Your task to perform on an android device: change alarm snooze length Image 0: 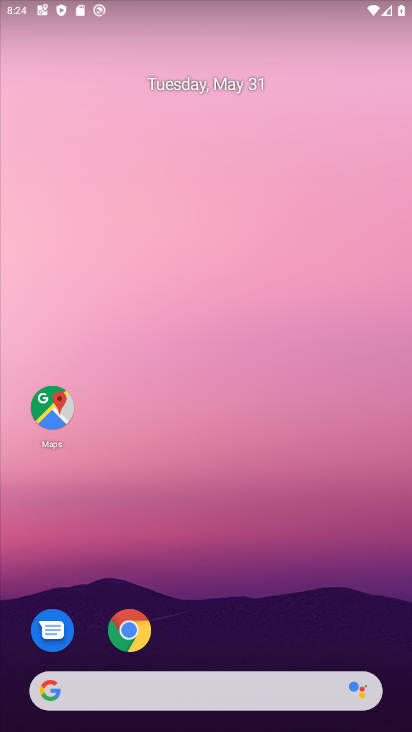
Step 0: drag from (249, 601) to (242, 113)
Your task to perform on an android device: change alarm snooze length Image 1: 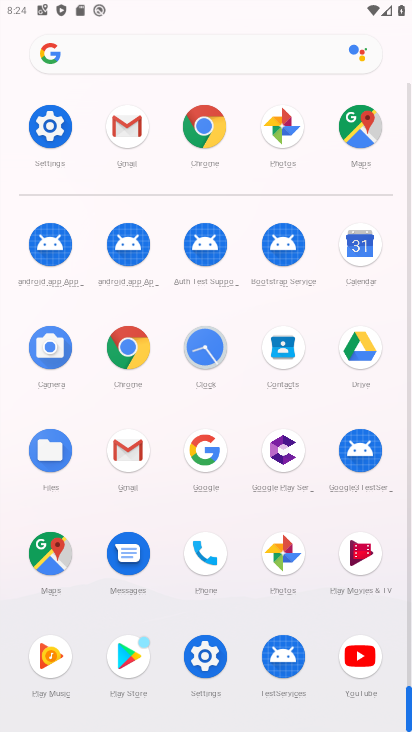
Step 1: click (195, 349)
Your task to perform on an android device: change alarm snooze length Image 2: 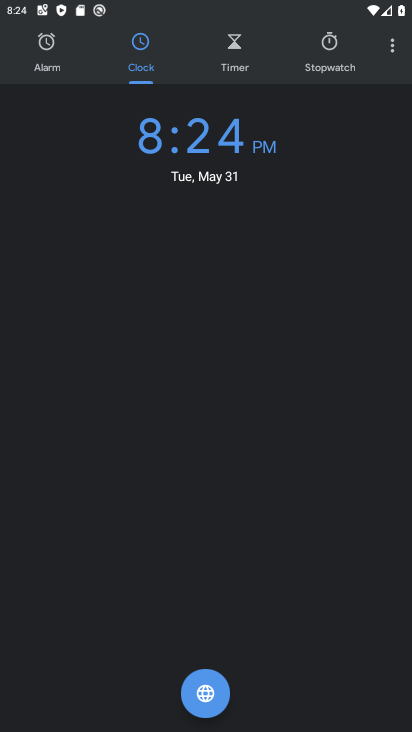
Step 2: click (400, 44)
Your task to perform on an android device: change alarm snooze length Image 3: 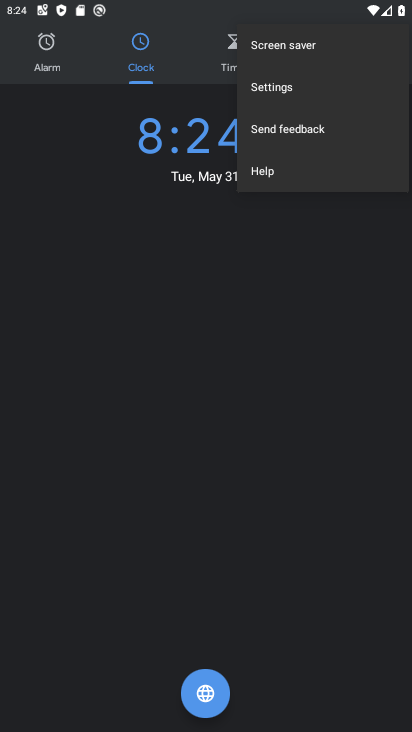
Step 3: click (267, 71)
Your task to perform on an android device: change alarm snooze length Image 4: 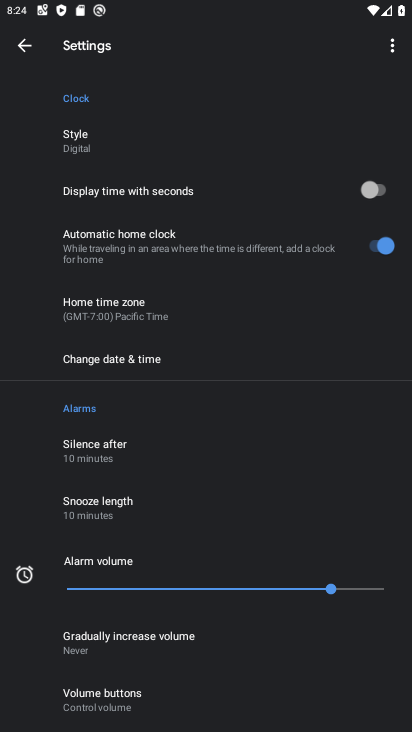
Step 4: click (141, 494)
Your task to perform on an android device: change alarm snooze length Image 5: 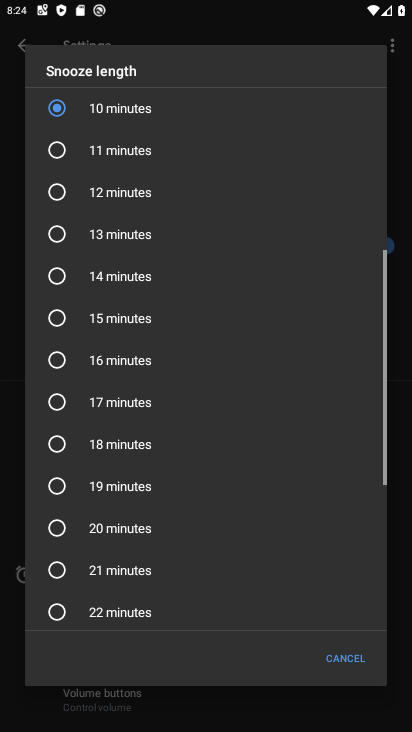
Step 5: click (138, 485)
Your task to perform on an android device: change alarm snooze length Image 6: 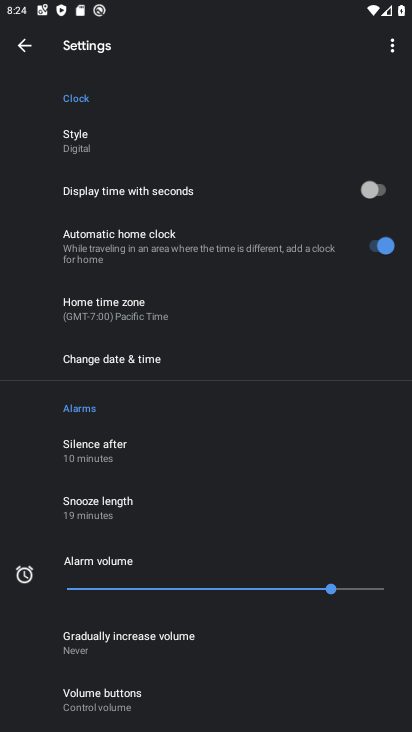
Step 6: task complete